Your task to perform on an android device: turn on translation in the chrome app Image 0: 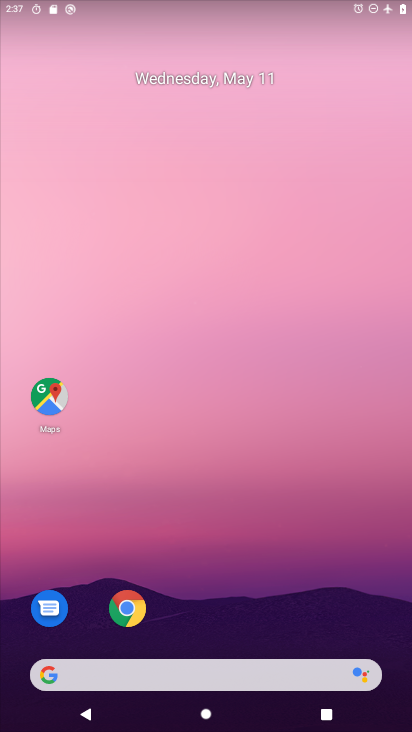
Step 0: drag from (221, 642) to (281, 81)
Your task to perform on an android device: turn on translation in the chrome app Image 1: 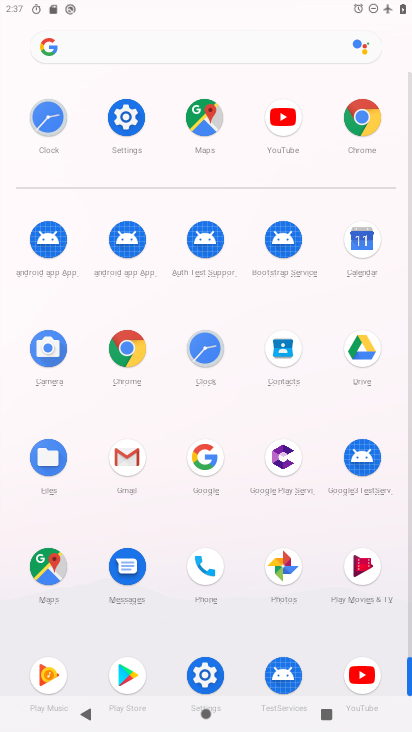
Step 1: click (371, 124)
Your task to perform on an android device: turn on translation in the chrome app Image 2: 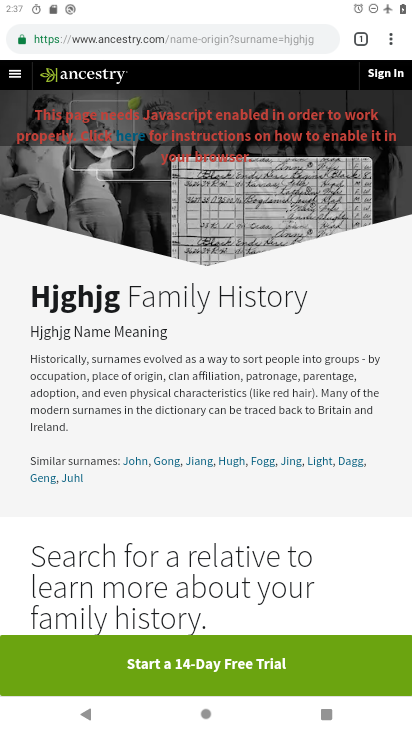
Step 2: click (393, 38)
Your task to perform on an android device: turn on translation in the chrome app Image 3: 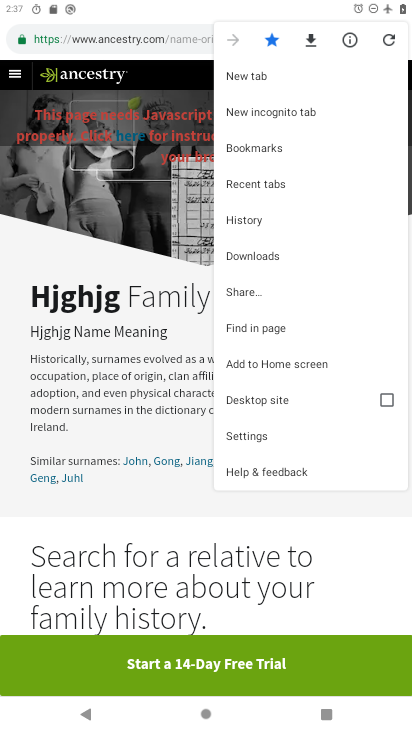
Step 3: task complete